Your task to perform on an android device: open app "Google Translate" (install if not already installed) Image 0: 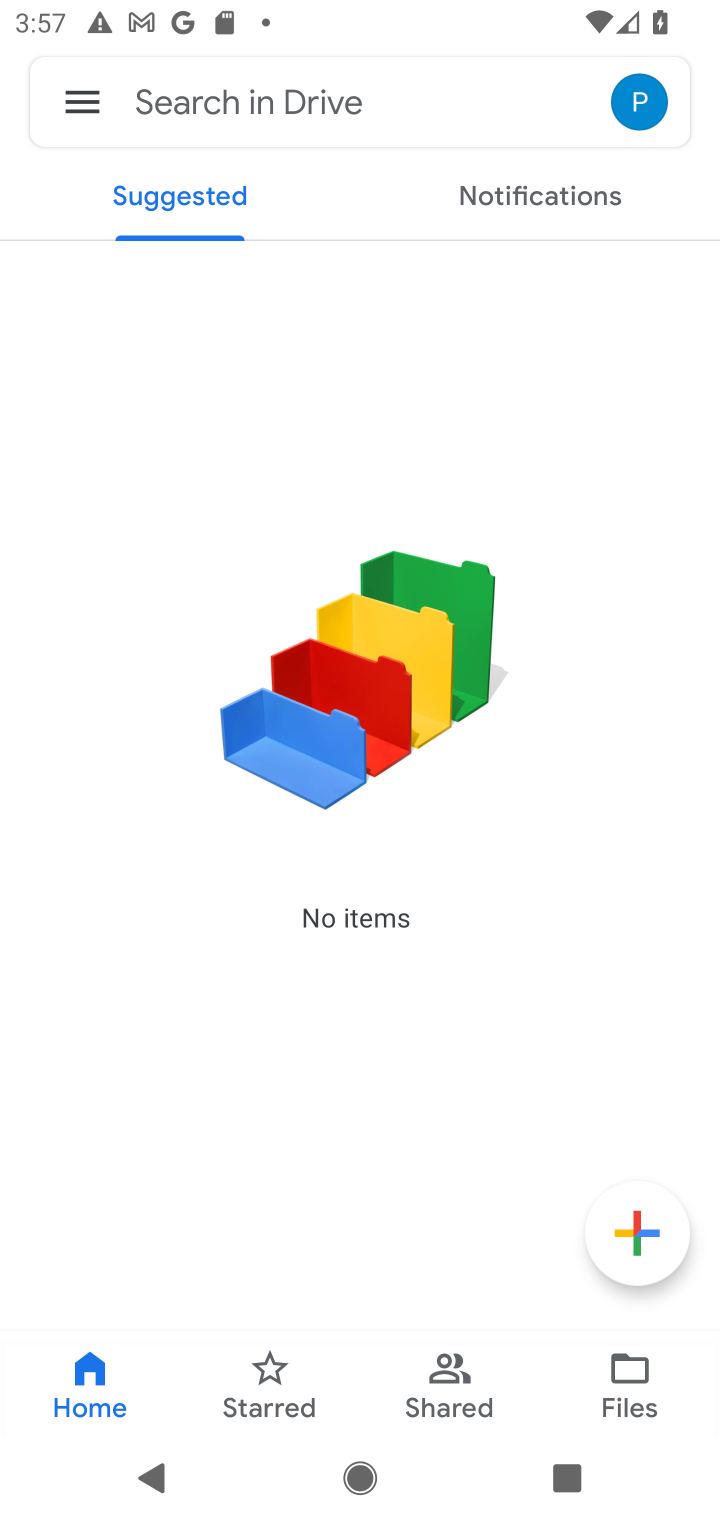
Step 0: click (208, 87)
Your task to perform on an android device: open app "Google Translate" (install if not already installed) Image 1: 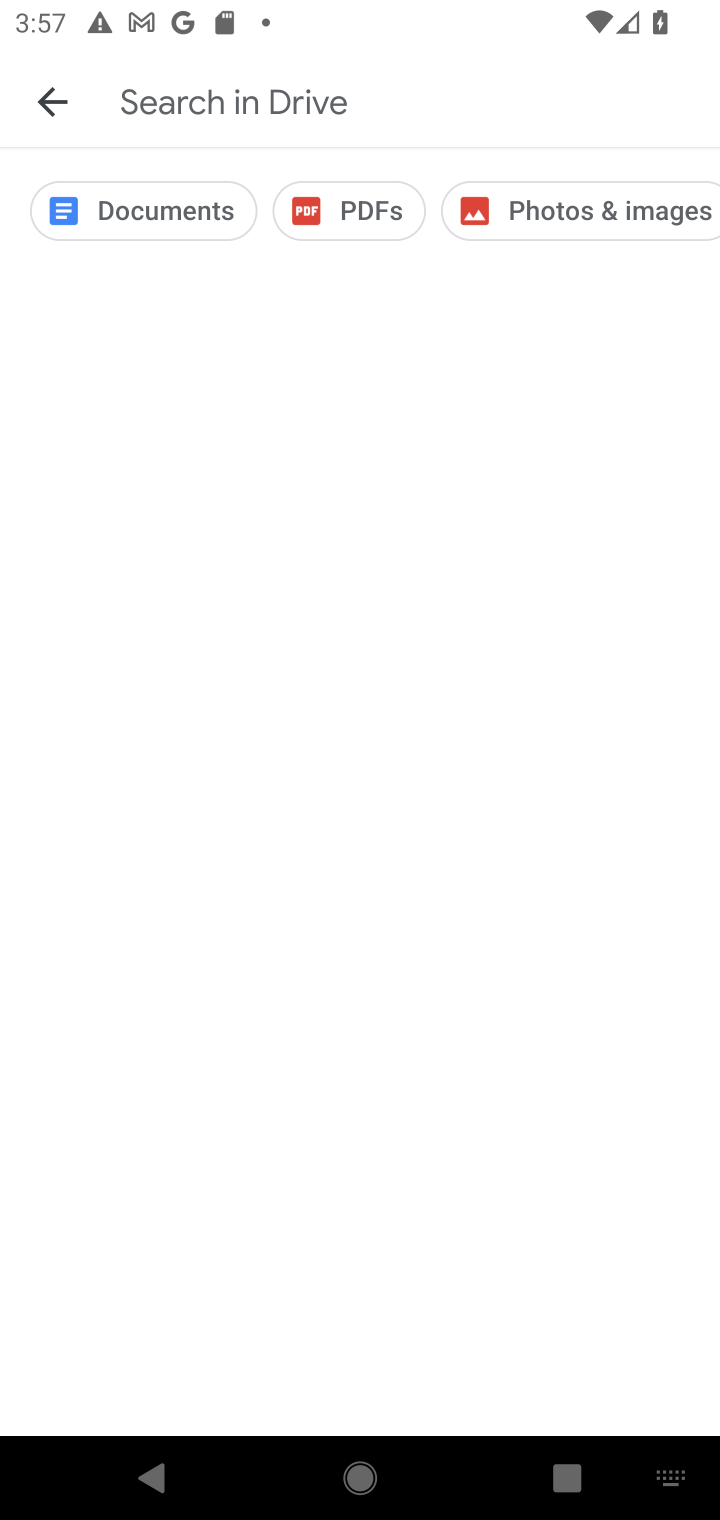
Step 1: press home button
Your task to perform on an android device: open app "Google Translate" (install if not already installed) Image 2: 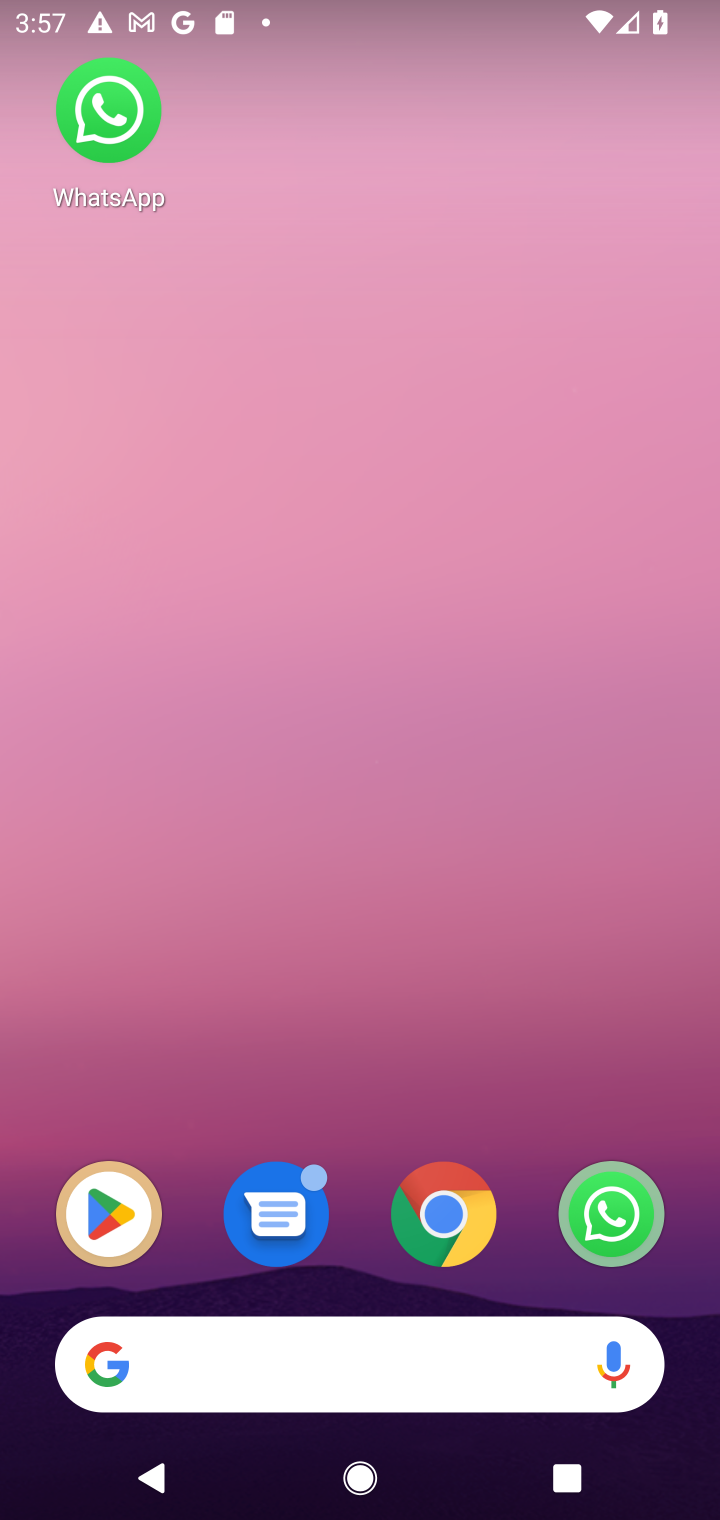
Step 2: click (104, 1205)
Your task to perform on an android device: open app "Google Translate" (install if not already installed) Image 3: 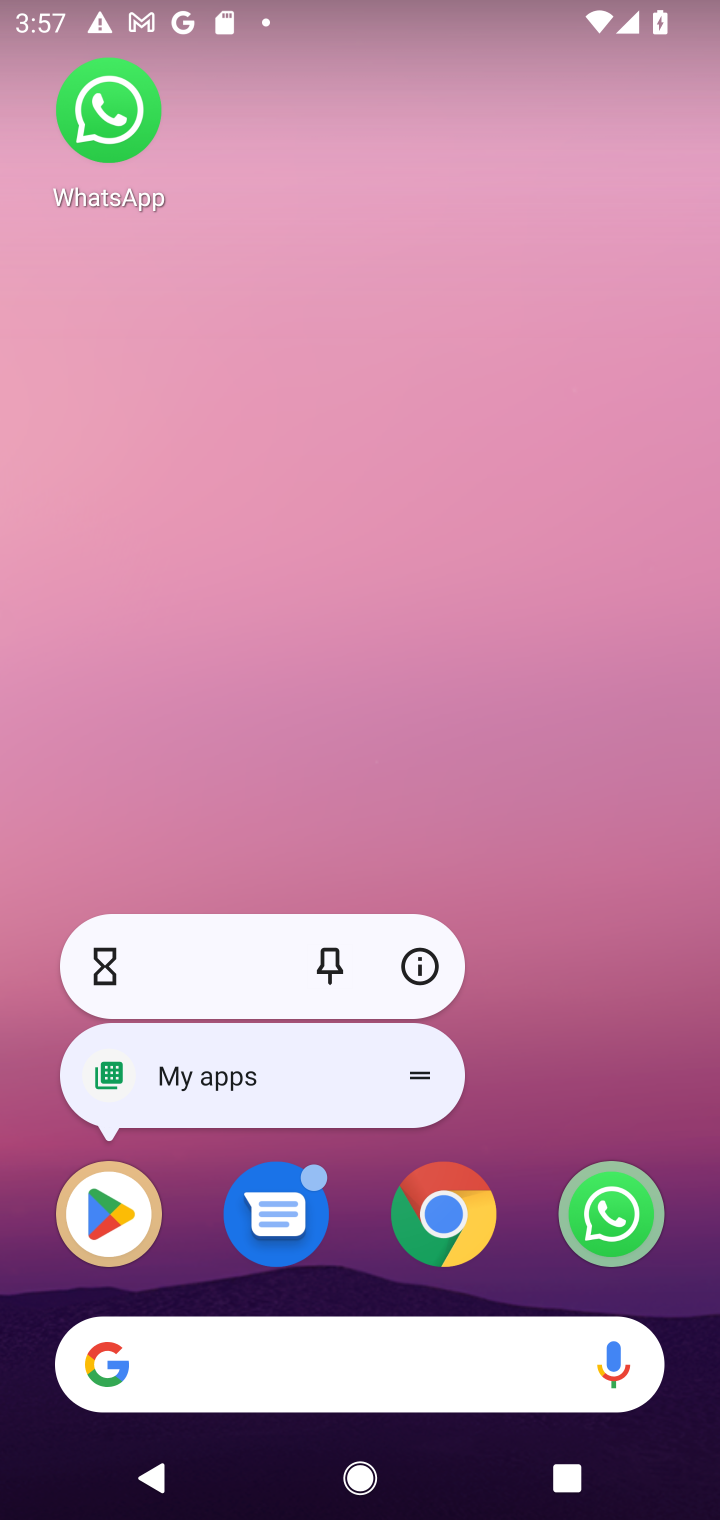
Step 3: click (89, 1223)
Your task to perform on an android device: open app "Google Translate" (install if not already installed) Image 4: 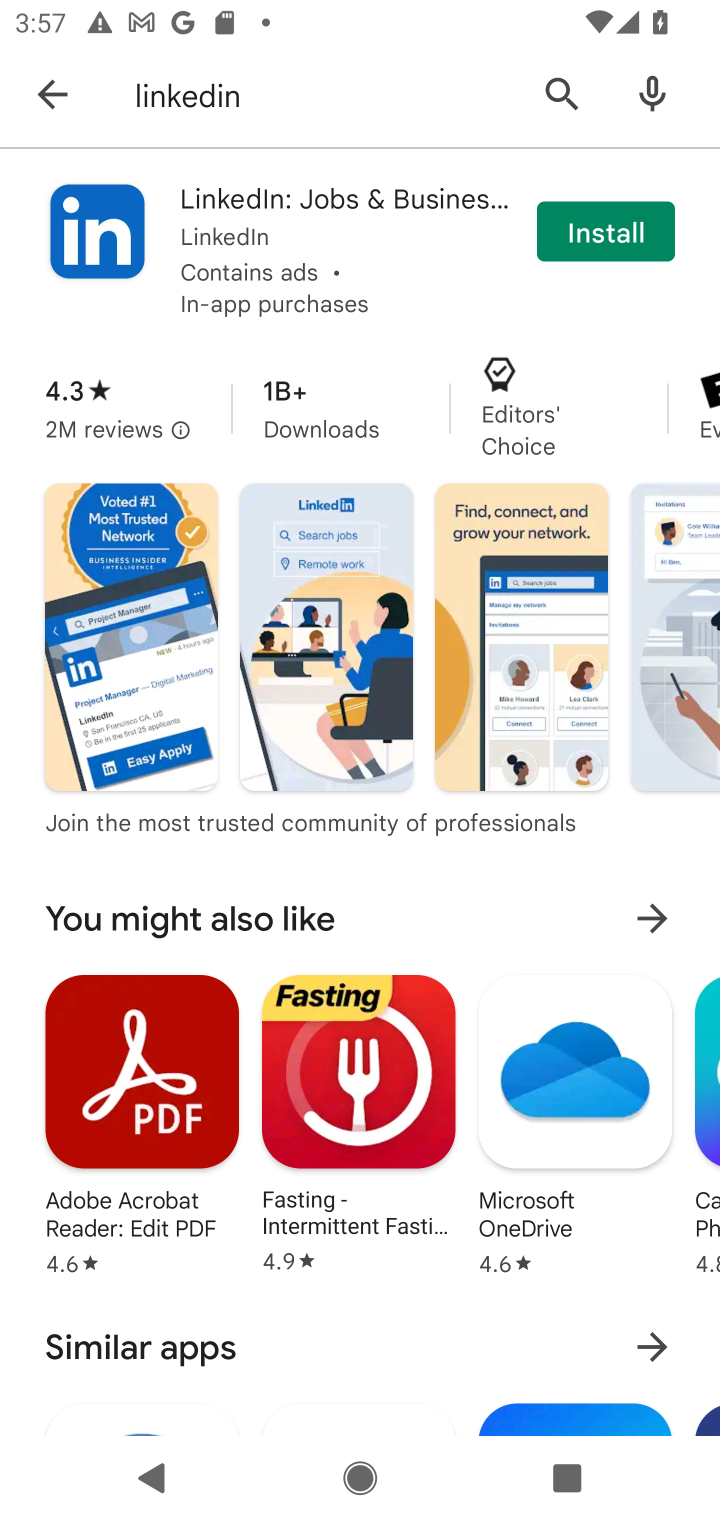
Step 4: click (279, 99)
Your task to perform on an android device: open app "Google Translate" (install if not already installed) Image 5: 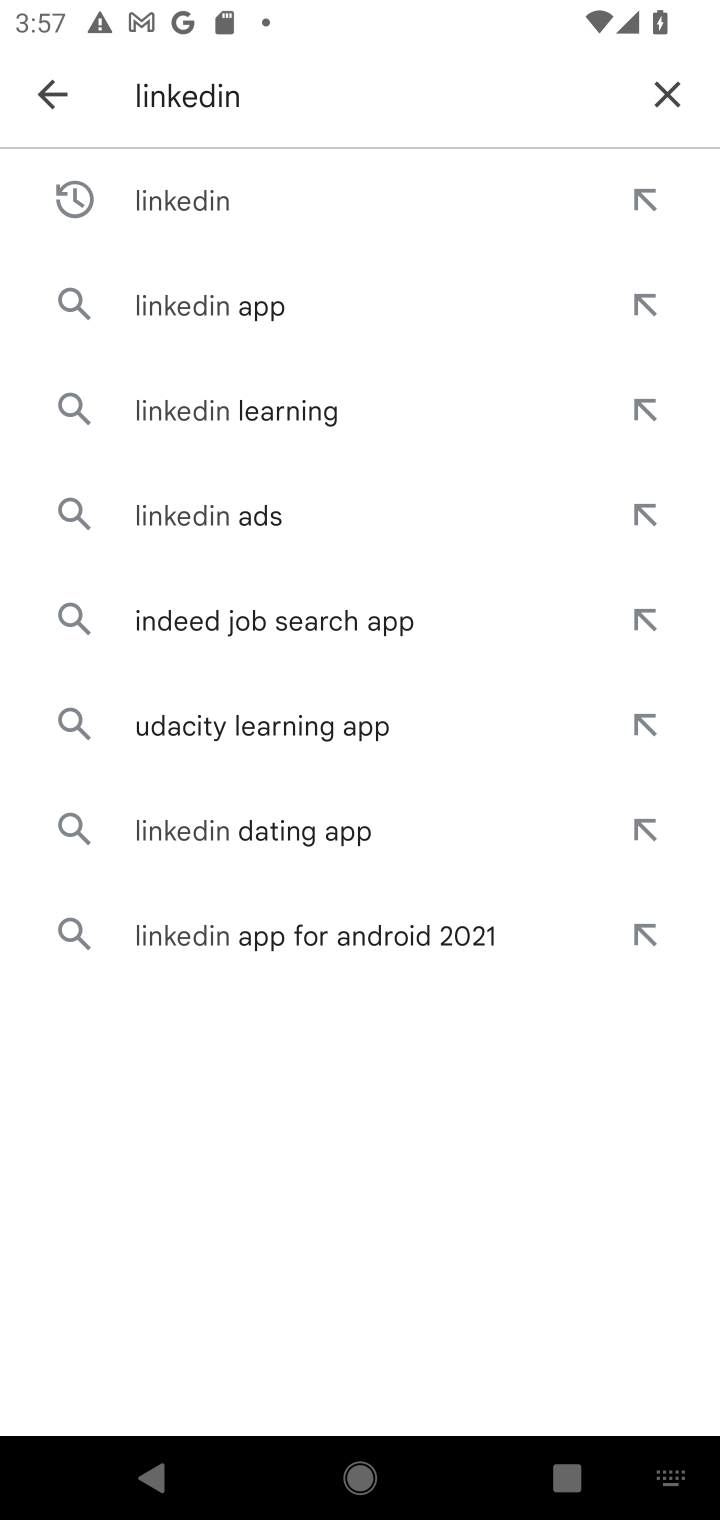
Step 5: click (676, 103)
Your task to perform on an android device: open app "Google Translate" (install if not already installed) Image 6: 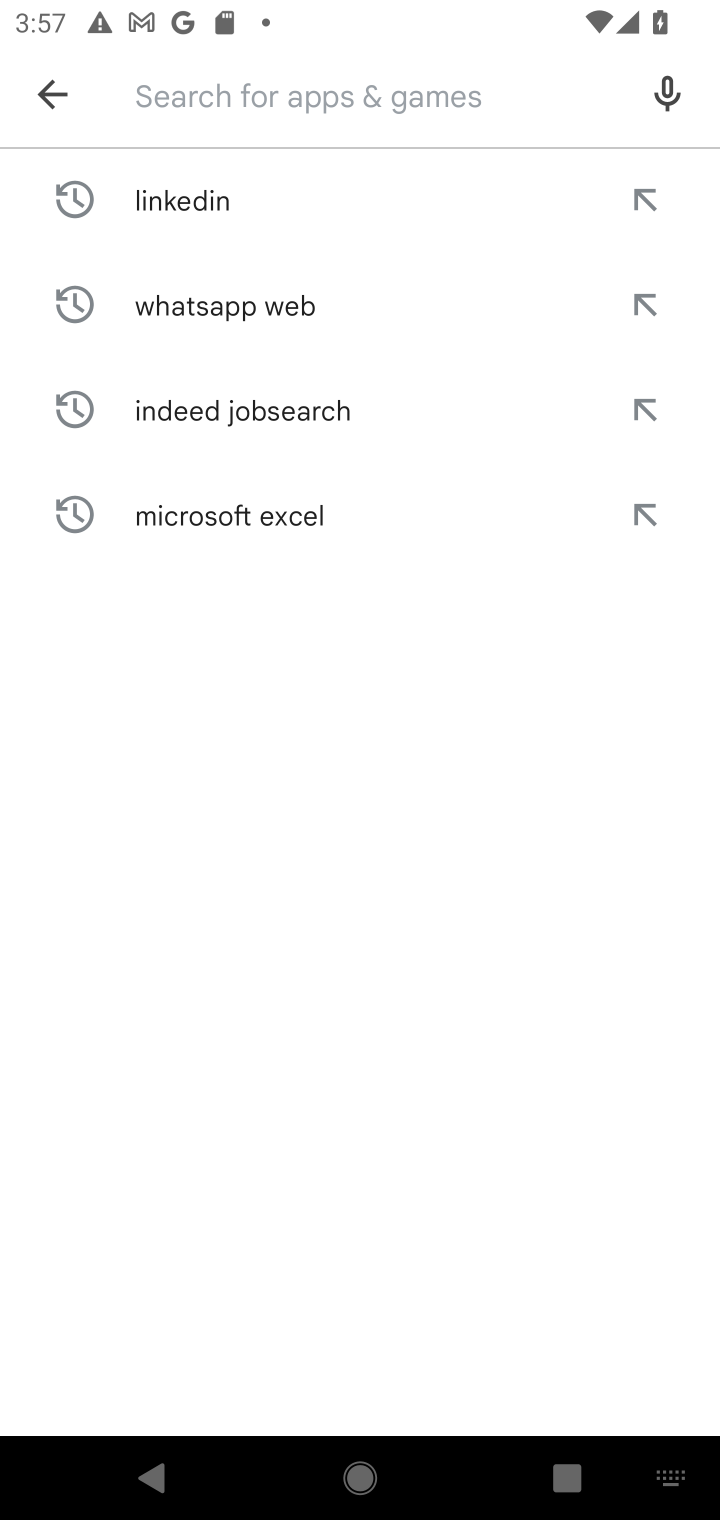
Step 6: type "google translate"
Your task to perform on an android device: open app "Google Translate" (install if not already installed) Image 7: 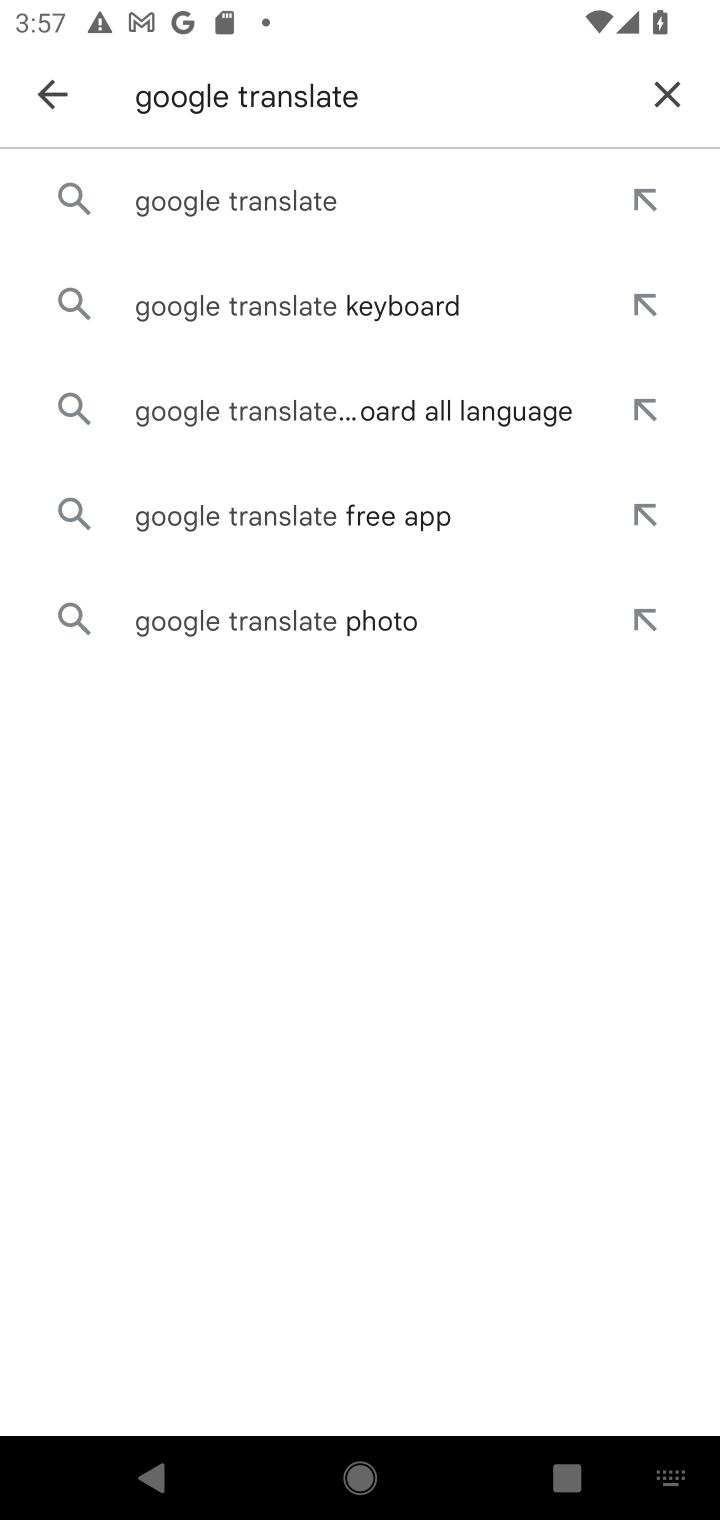
Step 7: click (331, 222)
Your task to perform on an android device: open app "Google Translate" (install if not already installed) Image 8: 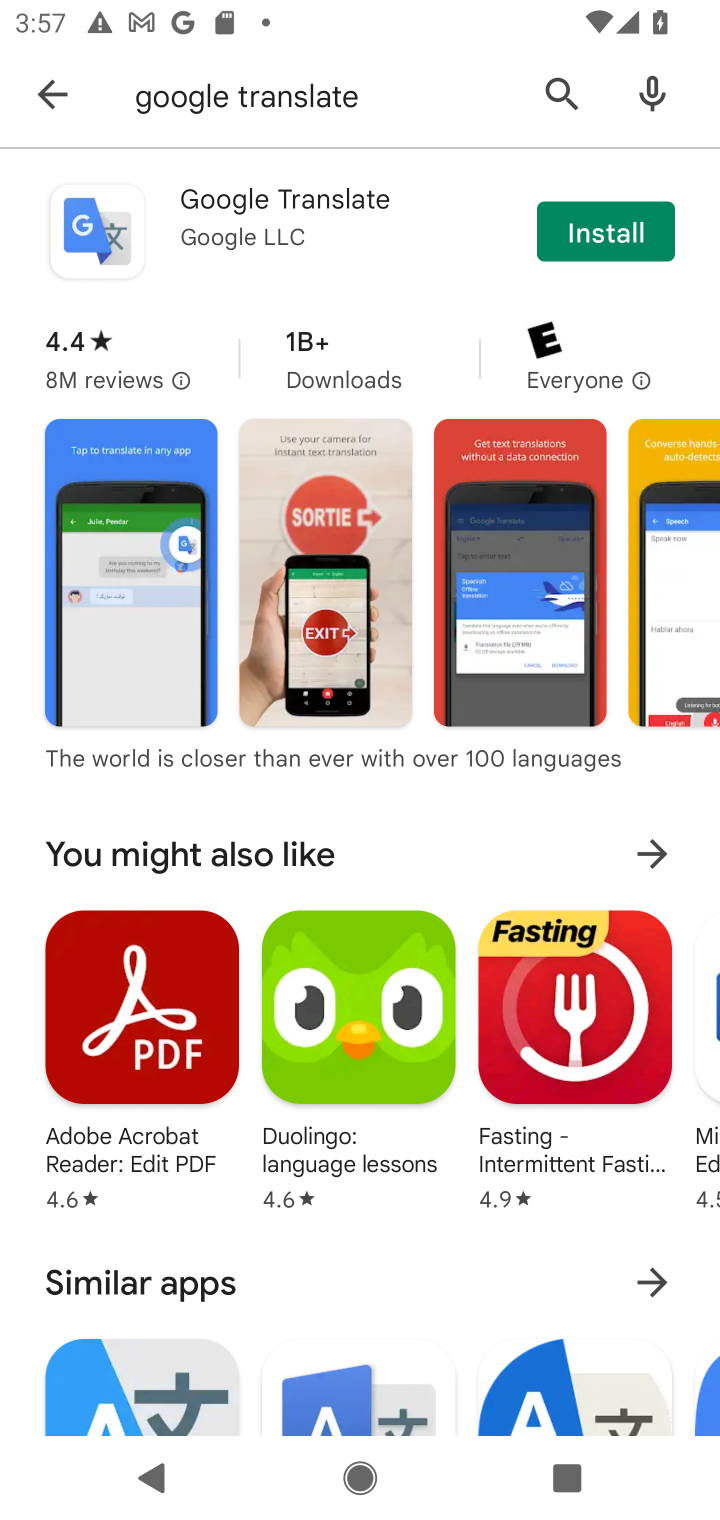
Step 8: click (609, 239)
Your task to perform on an android device: open app "Google Translate" (install if not already installed) Image 9: 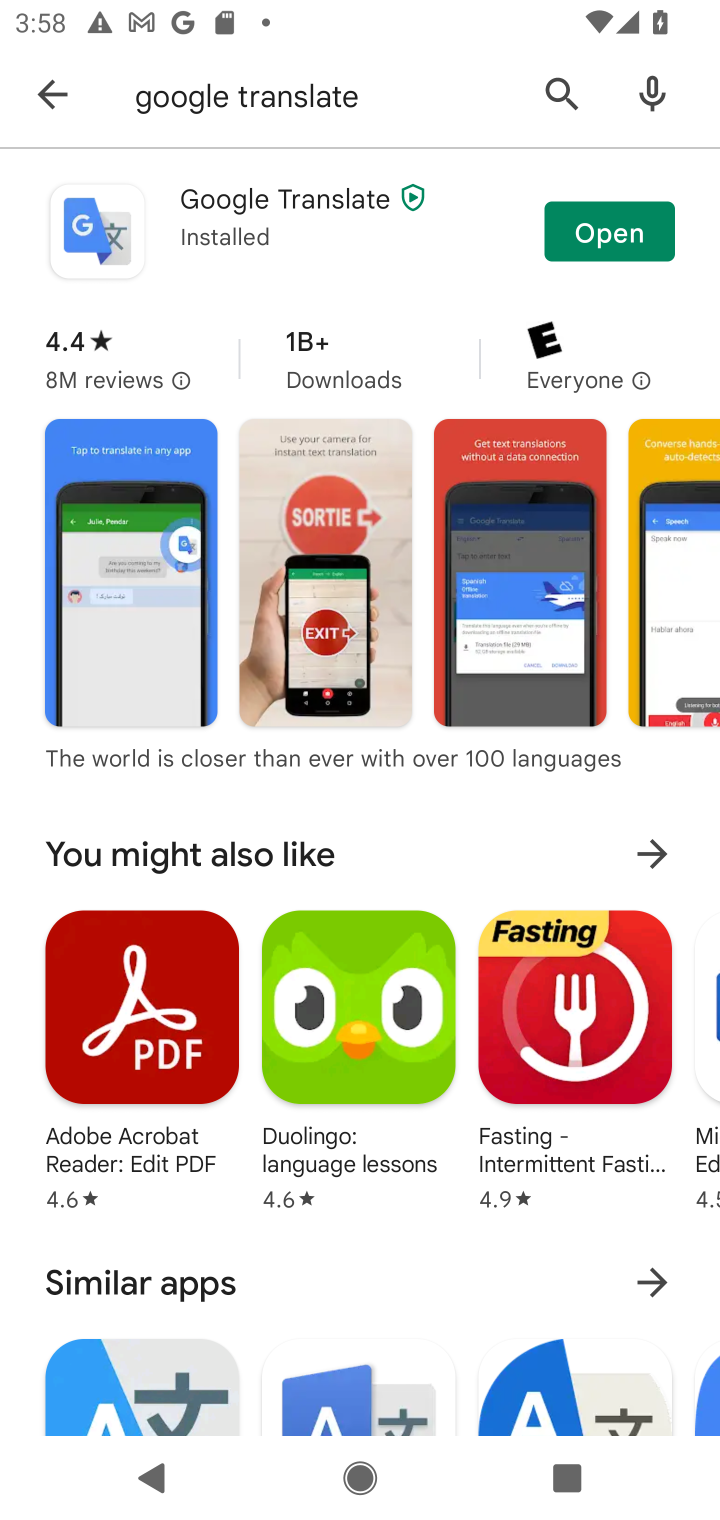
Step 9: click (617, 235)
Your task to perform on an android device: open app "Google Translate" (install if not already installed) Image 10: 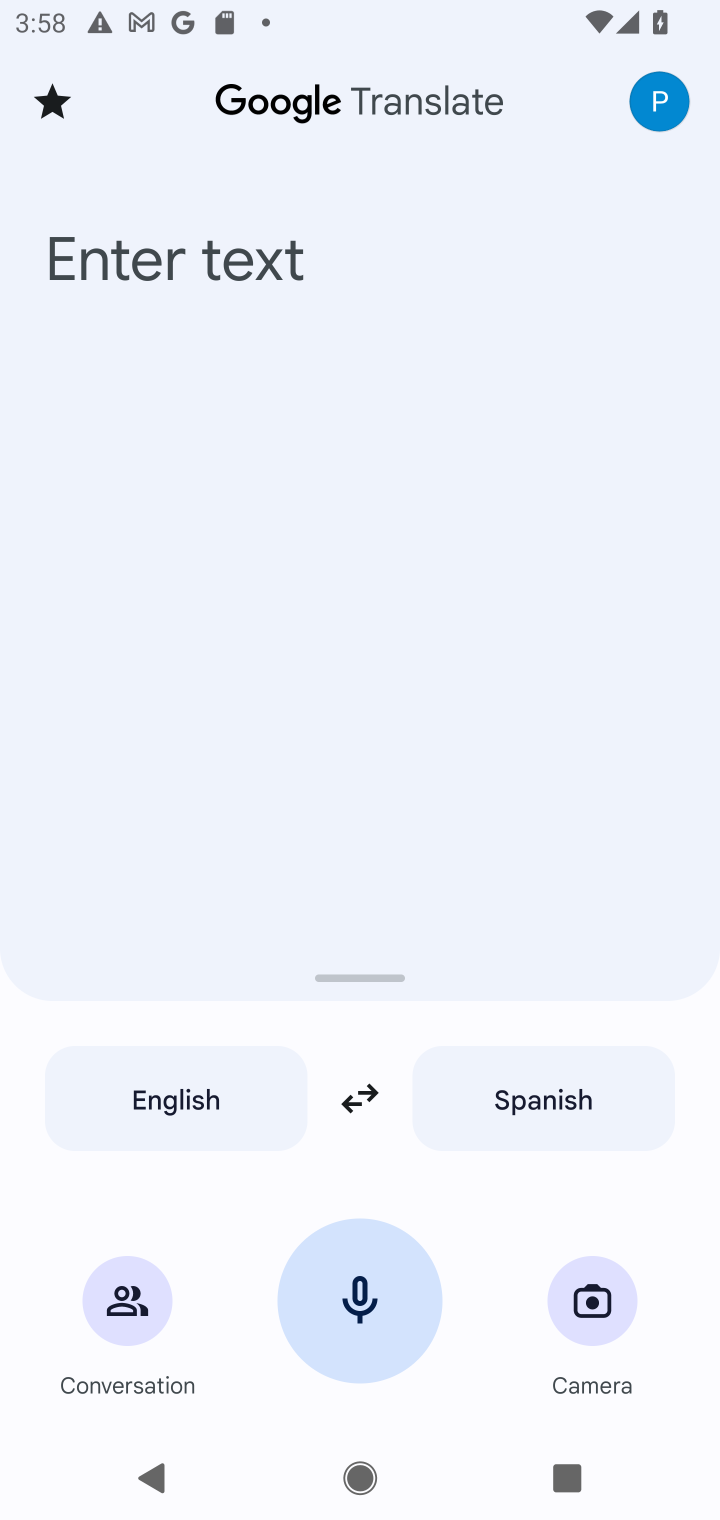
Step 10: task complete